Your task to perform on an android device: Do I have any events this weekend? Image 0: 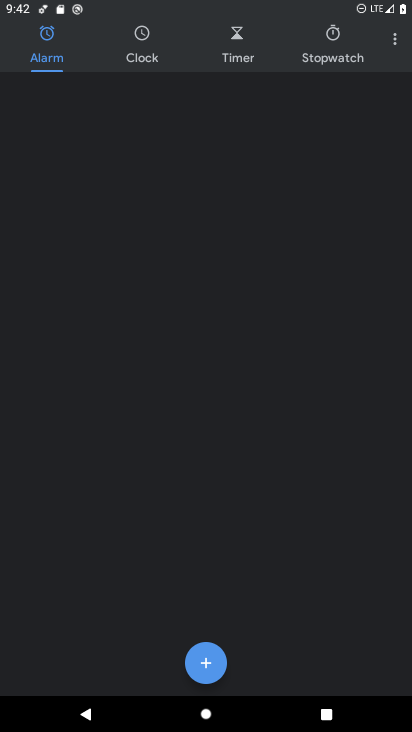
Step 0: press home button
Your task to perform on an android device: Do I have any events this weekend? Image 1: 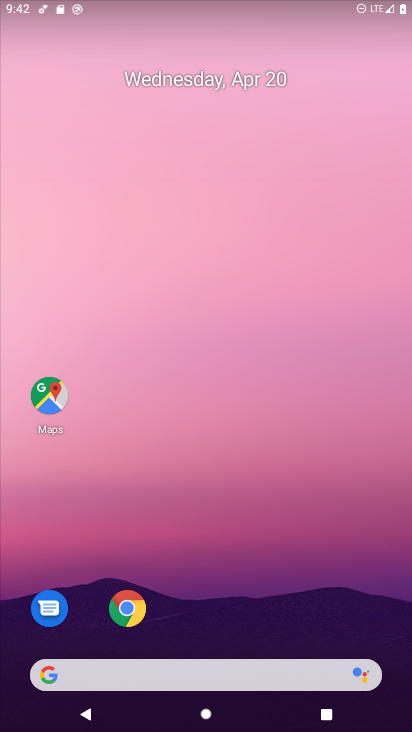
Step 1: drag from (194, 525) to (314, 0)
Your task to perform on an android device: Do I have any events this weekend? Image 2: 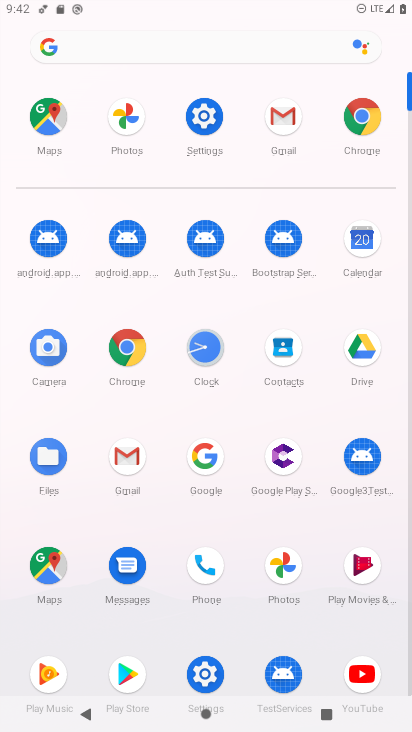
Step 2: click (372, 246)
Your task to perform on an android device: Do I have any events this weekend? Image 3: 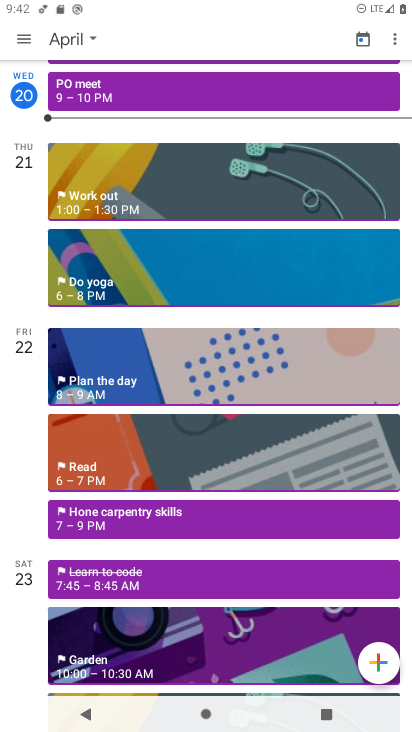
Step 3: click (21, 34)
Your task to perform on an android device: Do I have any events this weekend? Image 4: 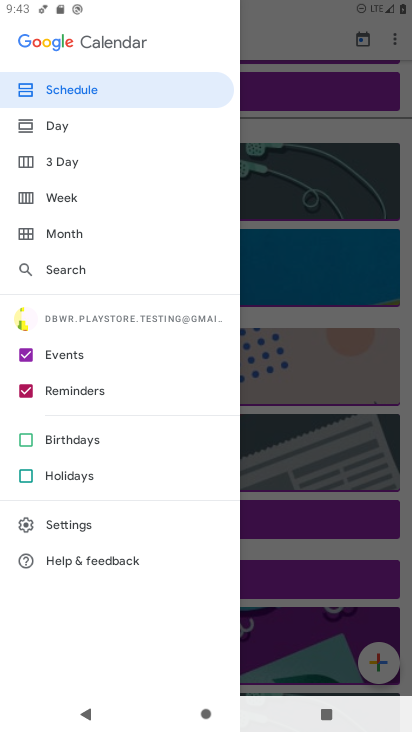
Step 4: click (27, 384)
Your task to perform on an android device: Do I have any events this weekend? Image 5: 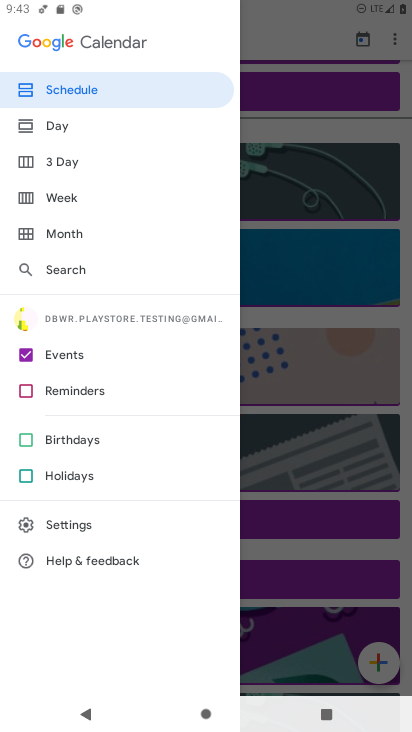
Step 5: click (81, 195)
Your task to perform on an android device: Do I have any events this weekend? Image 6: 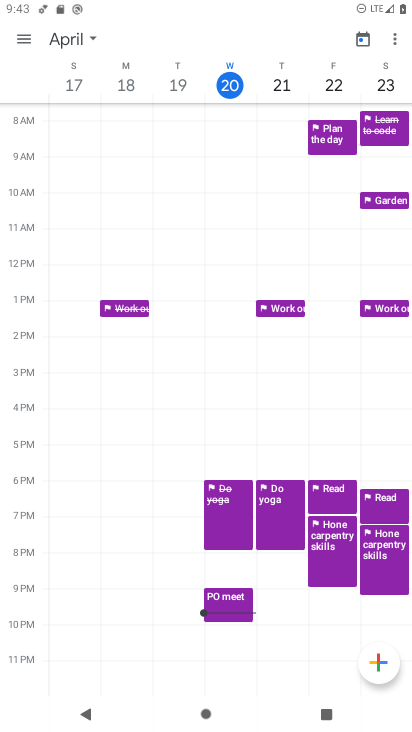
Step 6: task complete